Your task to perform on an android device: turn on priority inbox in the gmail app Image 0: 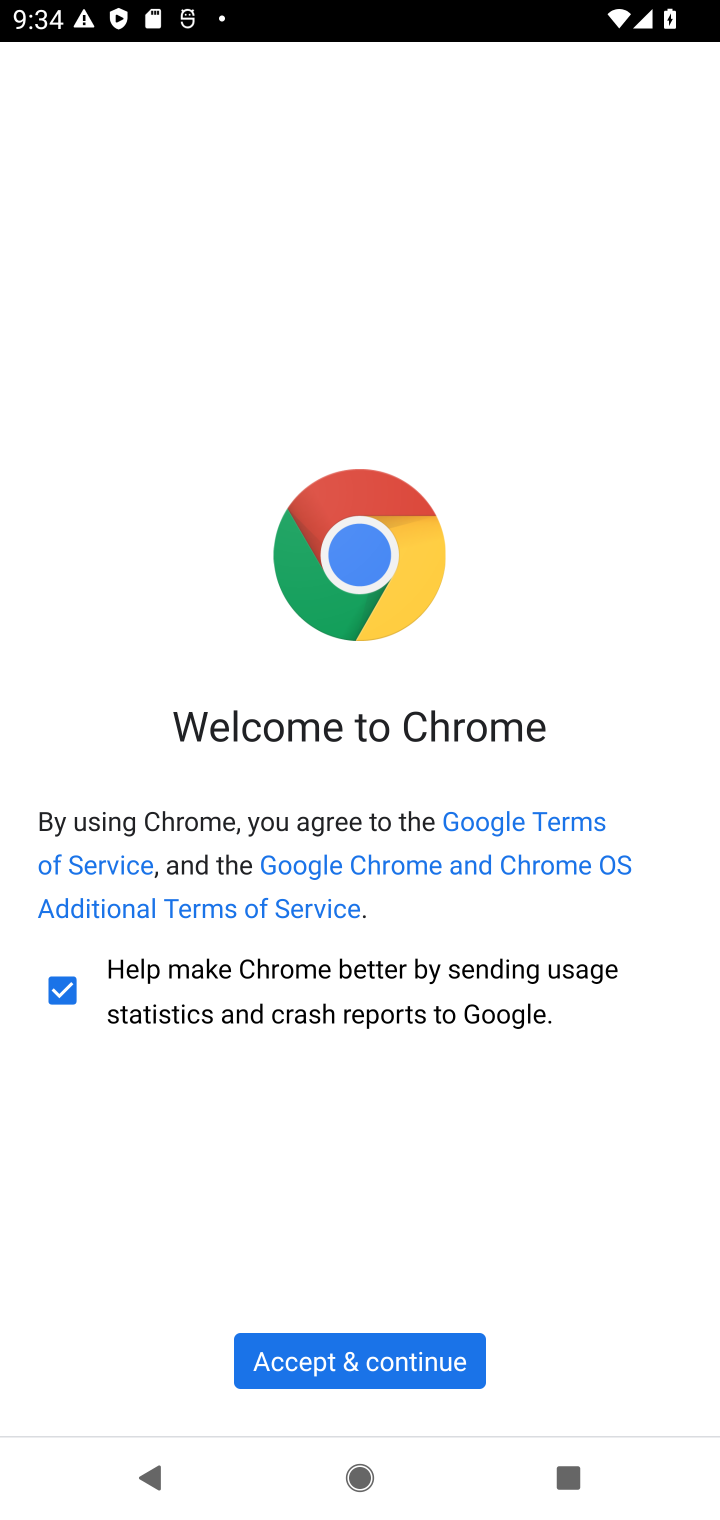
Step 0: drag from (341, 1218) to (367, 242)
Your task to perform on an android device: turn on priority inbox in the gmail app Image 1: 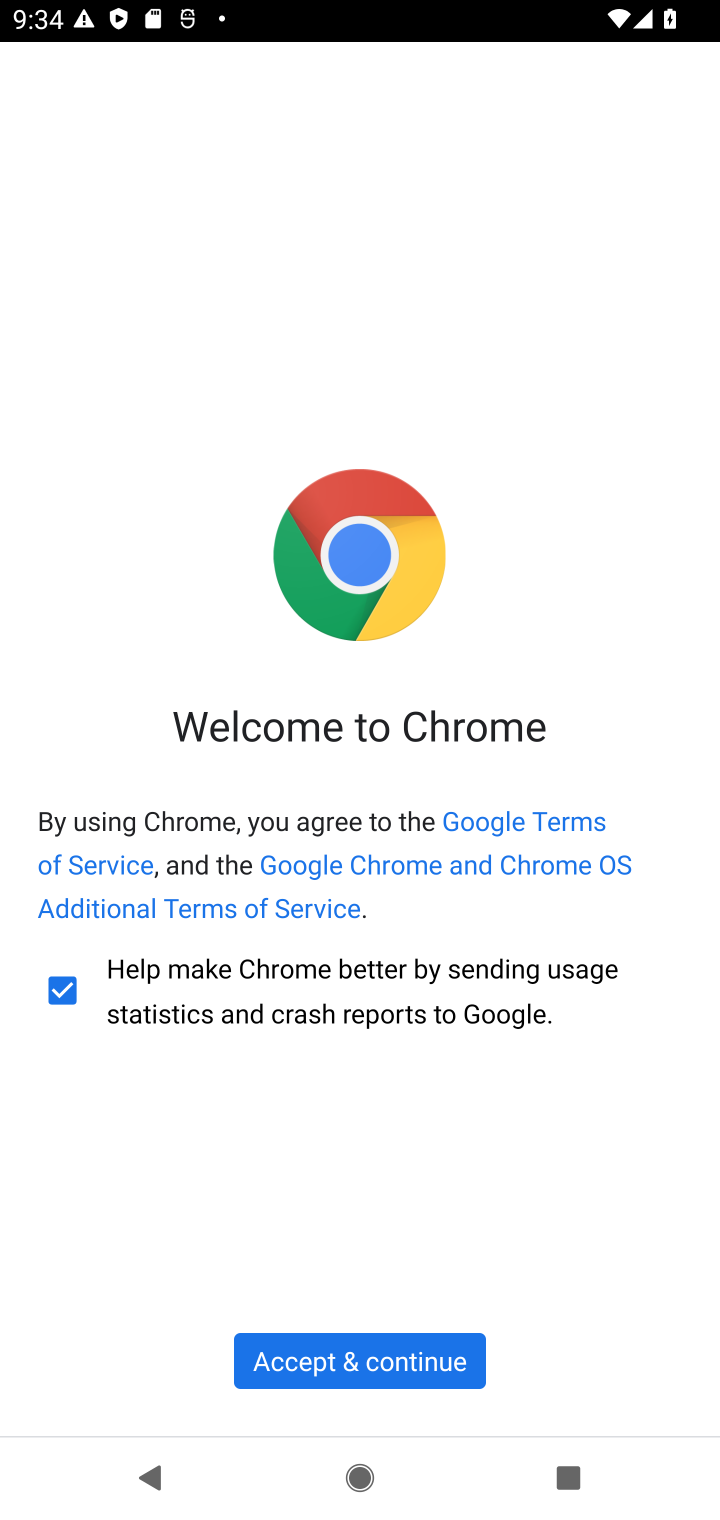
Step 1: press home button
Your task to perform on an android device: turn on priority inbox in the gmail app Image 2: 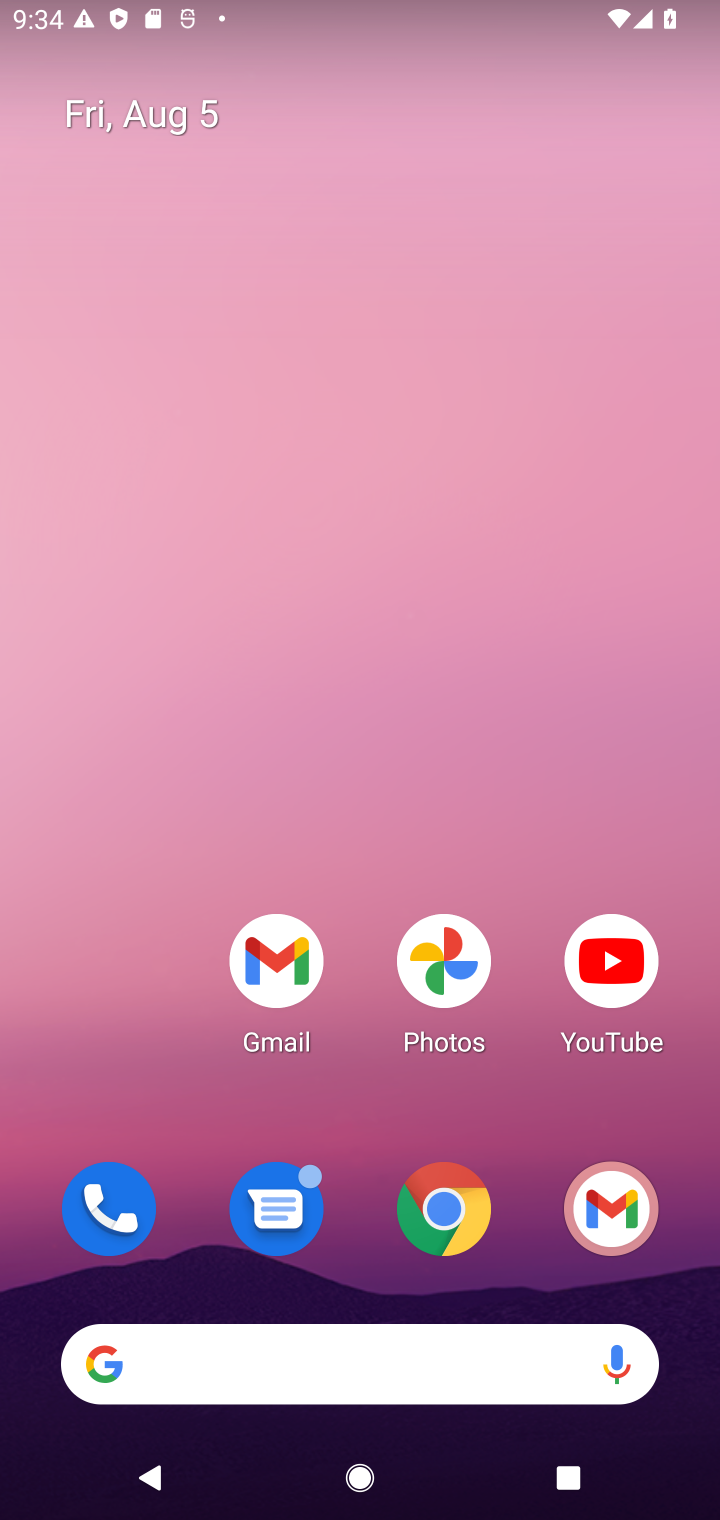
Step 2: click (252, 939)
Your task to perform on an android device: turn on priority inbox in the gmail app Image 3: 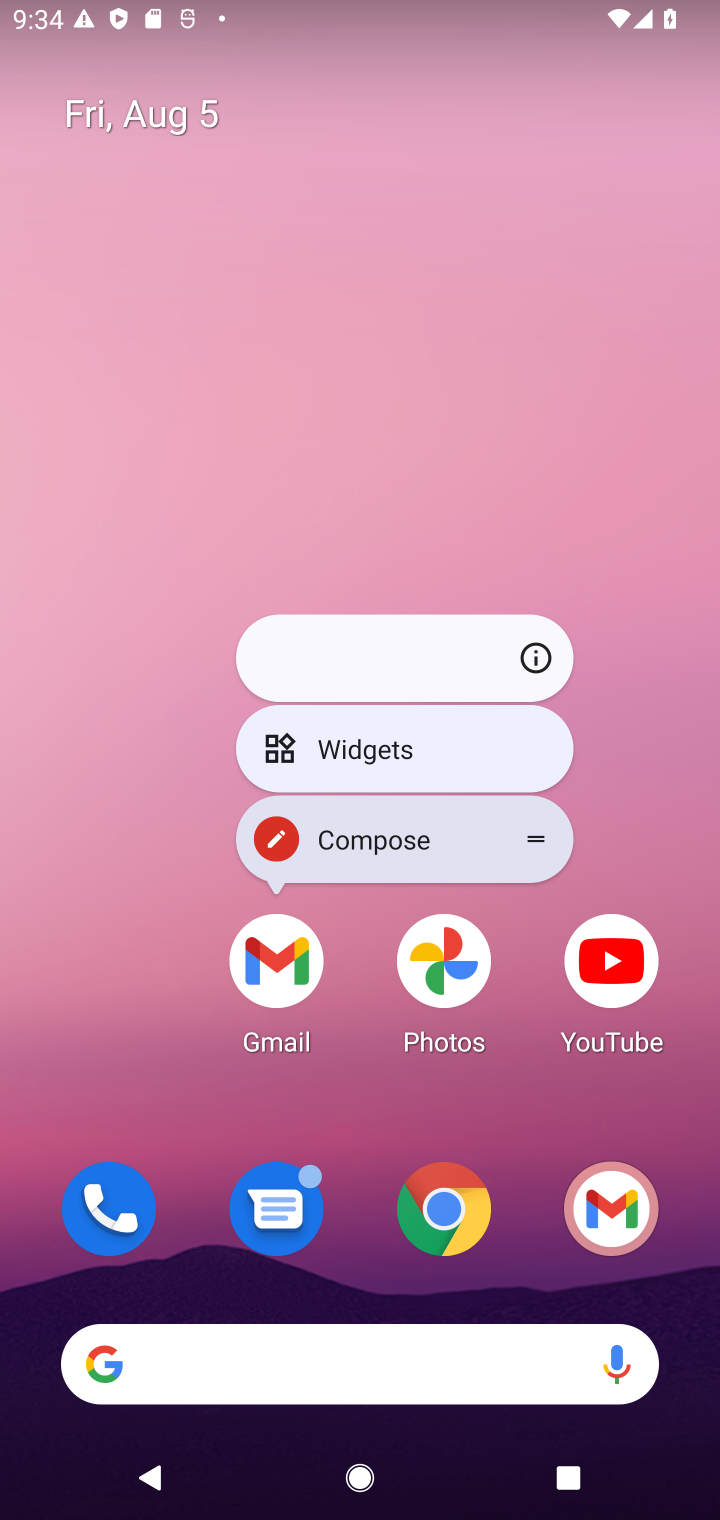
Step 3: click (540, 652)
Your task to perform on an android device: turn on priority inbox in the gmail app Image 4: 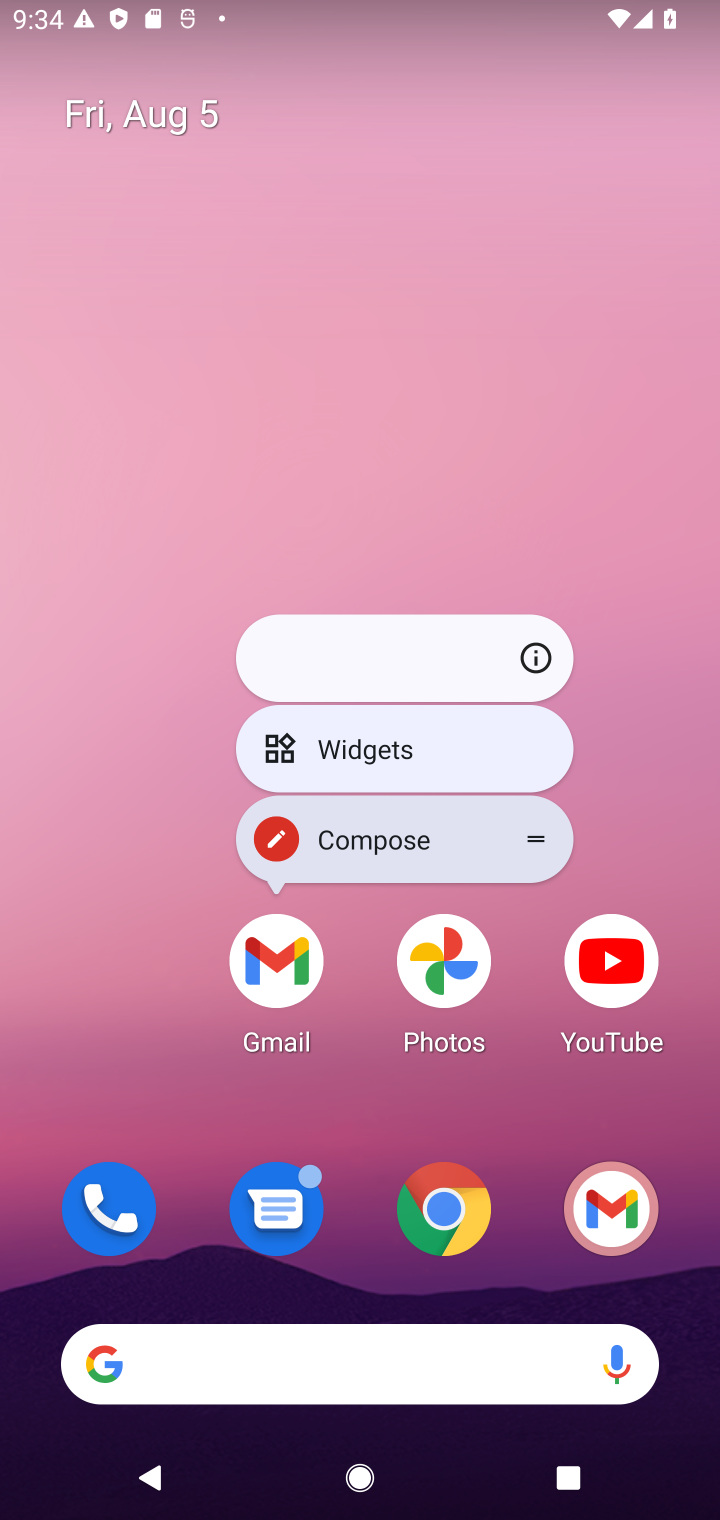
Step 4: click (531, 649)
Your task to perform on an android device: turn on priority inbox in the gmail app Image 5: 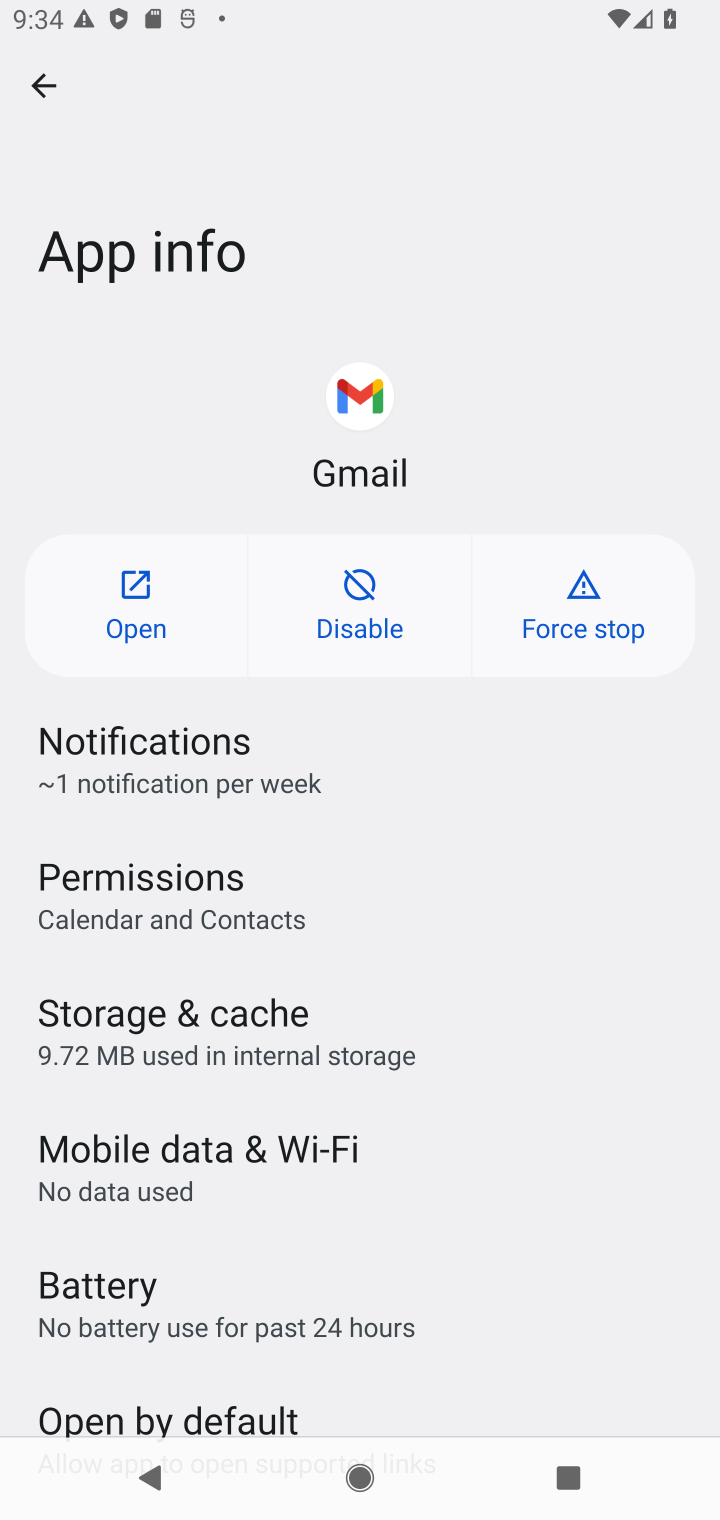
Step 5: click (122, 617)
Your task to perform on an android device: turn on priority inbox in the gmail app Image 6: 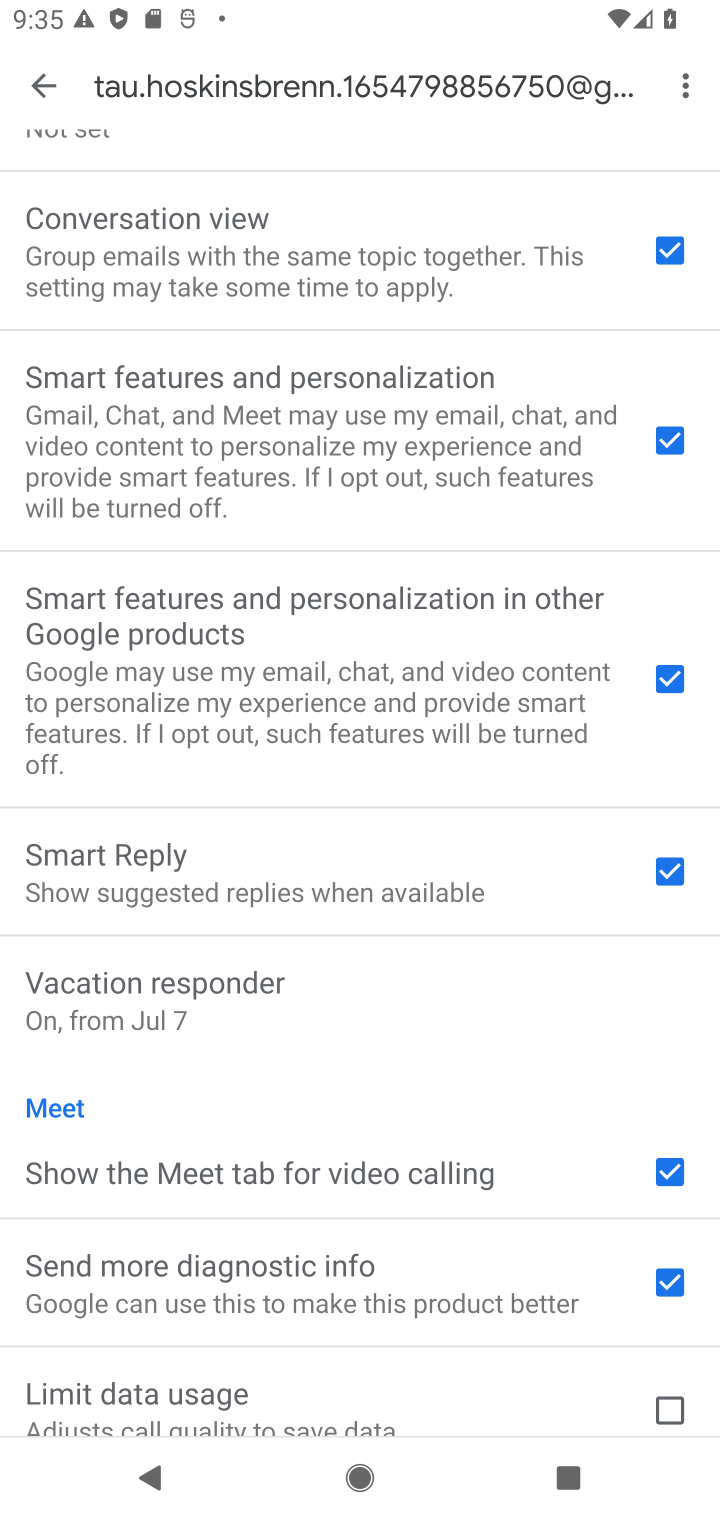
Step 6: drag from (391, 525) to (271, 1333)
Your task to perform on an android device: turn on priority inbox in the gmail app Image 7: 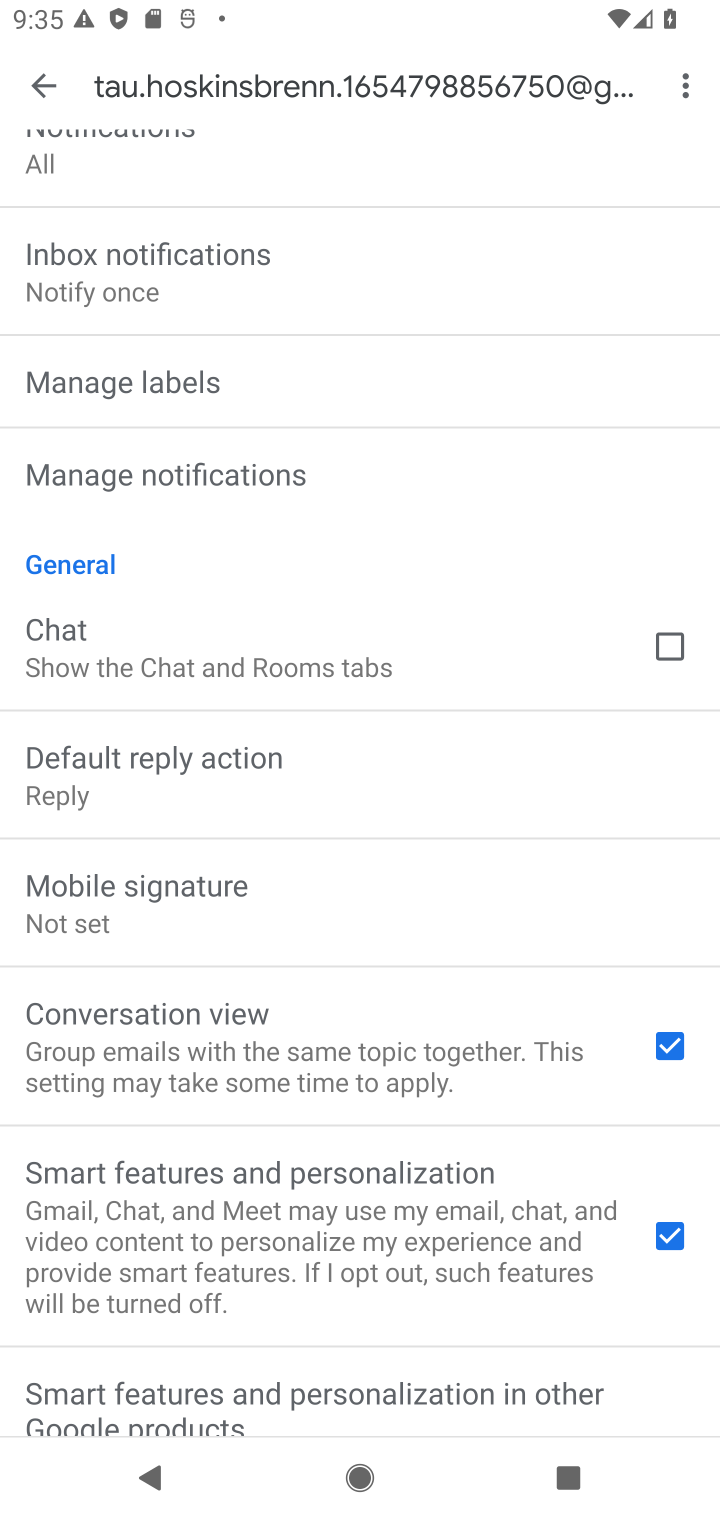
Step 7: drag from (338, 446) to (338, 1518)
Your task to perform on an android device: turn on priority inbox in the gmail app Image 8: 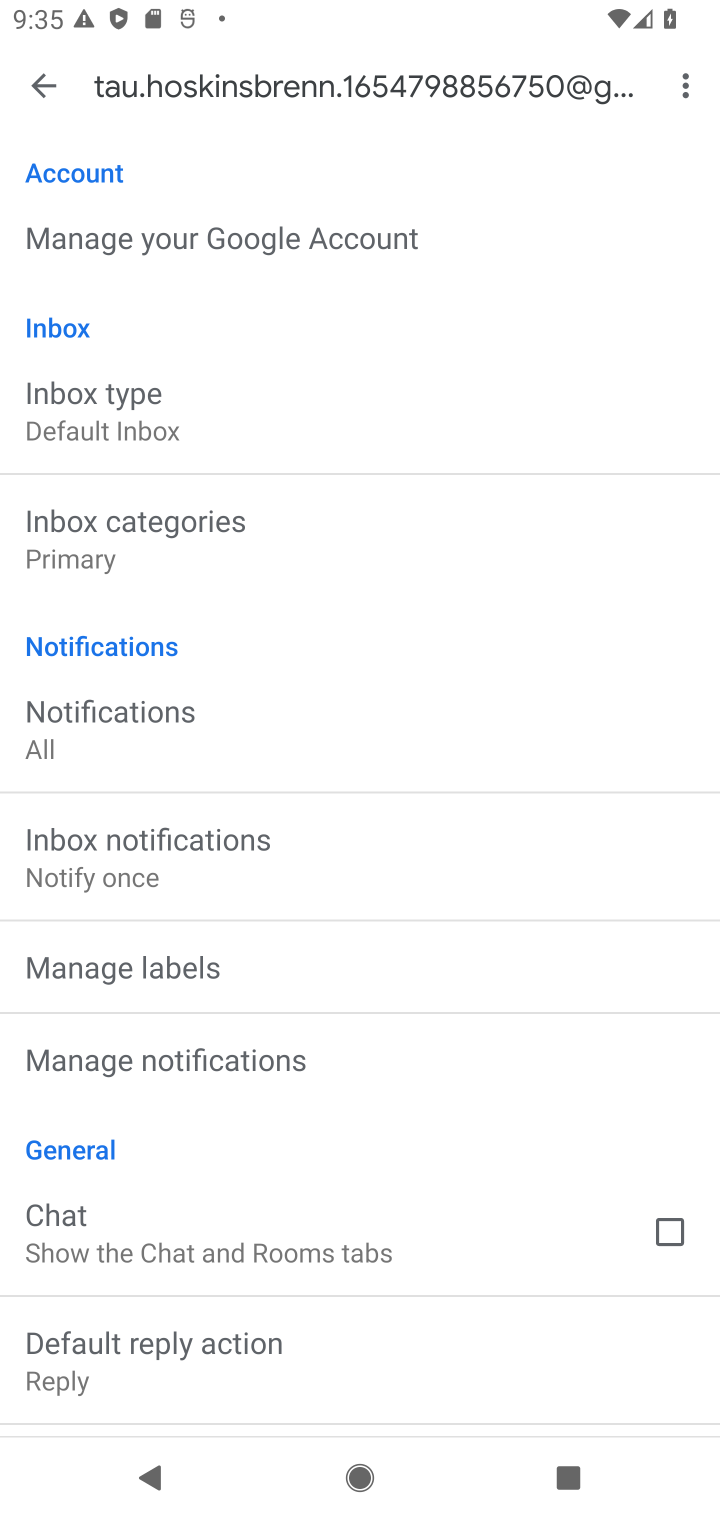
Step 8: click (234, 415)
Your task to perform on an android device: turn on priority inbox in the gmail app Image 9: 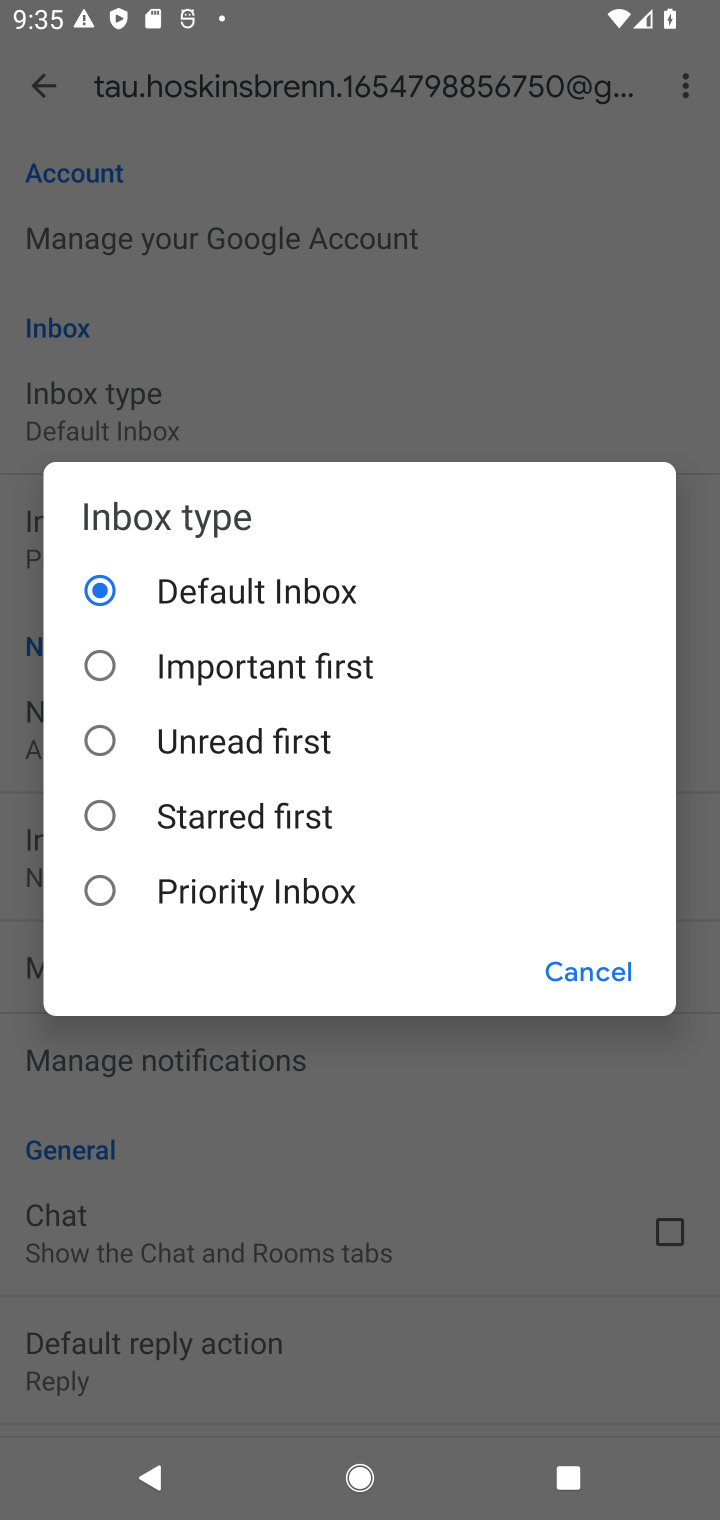
Step 9: click (159, 890)
Your task to perform on an android device: turn on priority inbox in the gmail app Image 10: 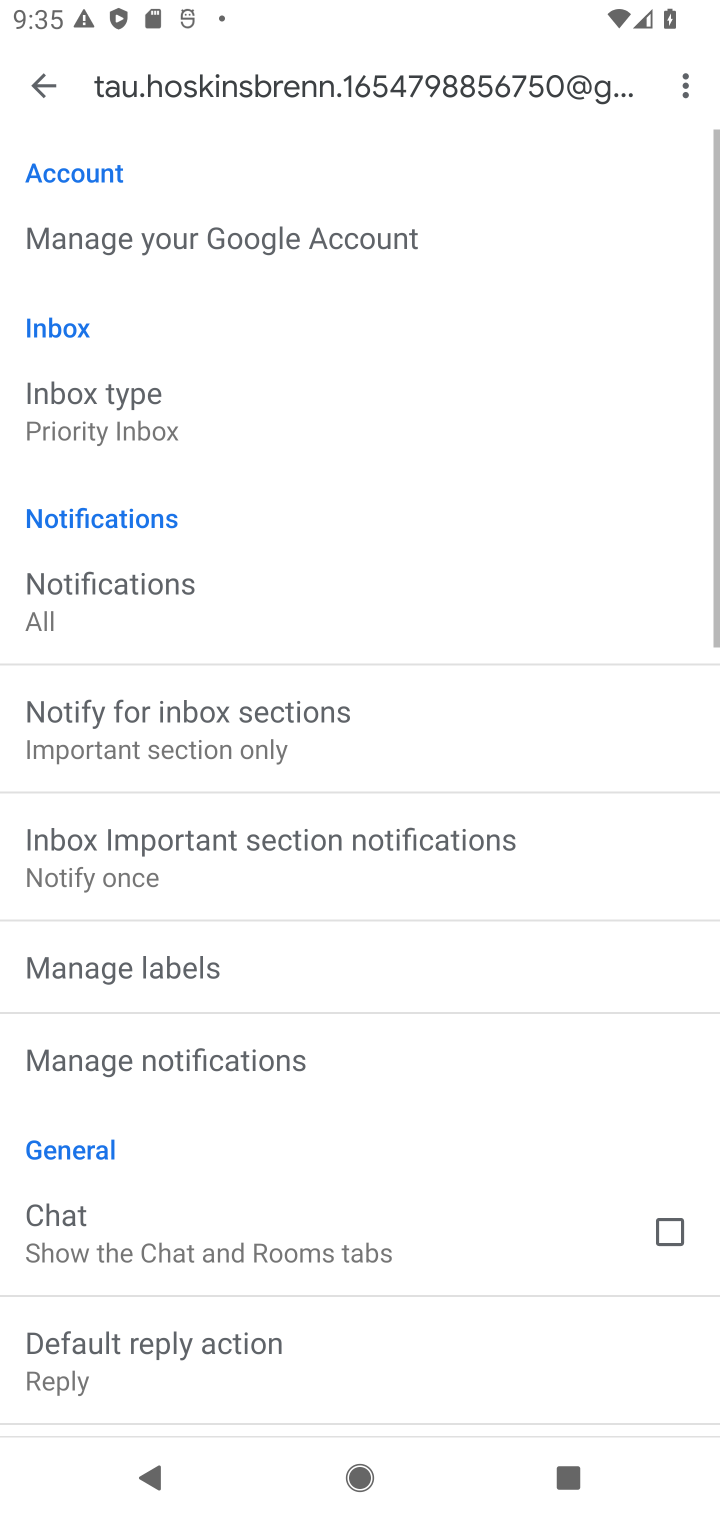
Step 10: task complete